Your task to perform on an android device: turn pop-ups off in chrome Image 0: 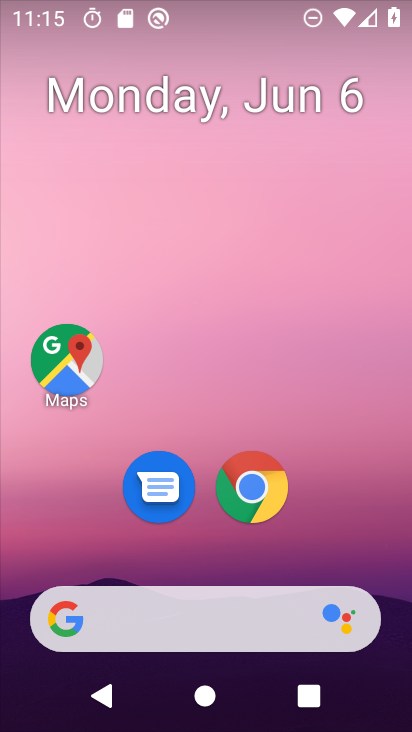
Step 0: drag from (404, 596) to (288, 5)
Your task to perform on an android device: turn pop-ups off in chrome Image 1: 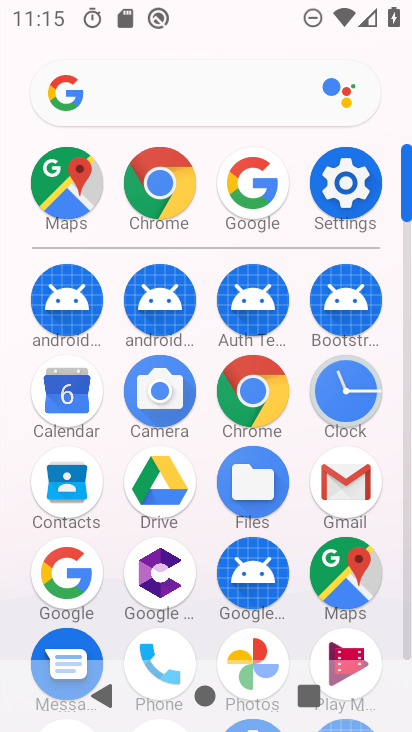
Step 1: click (173, 175)
Your task to perform on an android device: turn pop-ups off in chrome Image 2: 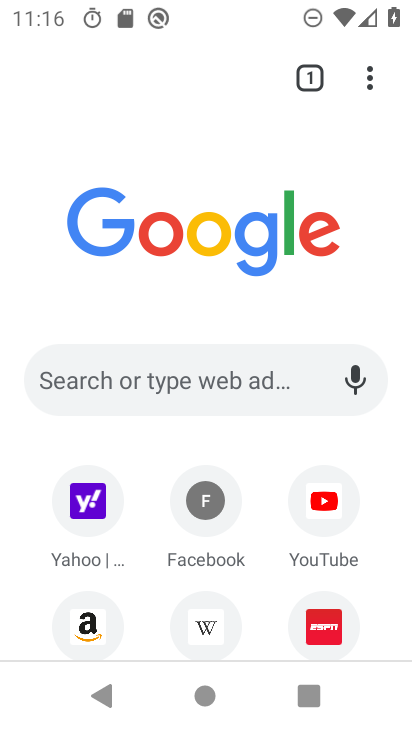
Step 2: click (366, 68)
Your task to perform on an android device: turn pop-ups off in chrome Image 3: 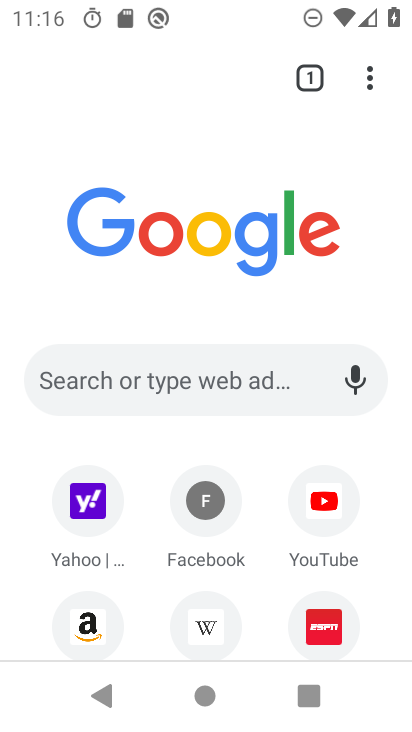
Step 3: click (376, 73)
Your task to perform on an android device: turn pop-ups off in chrome Image 4: 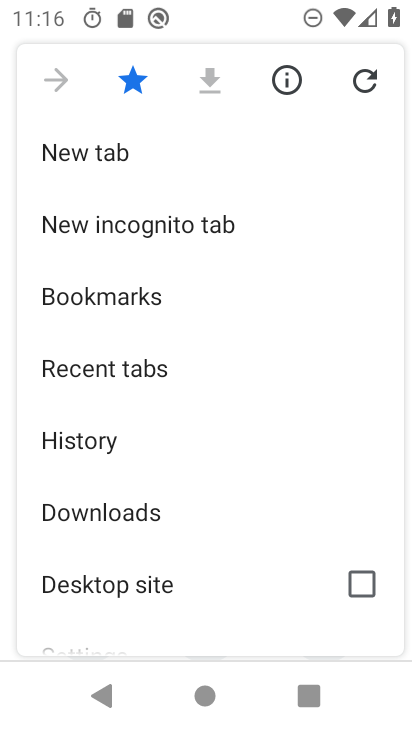
Step 4: drag from (181, 569) to (169, 142)
Your task to perform on an android device: turn pop-ups off in chrome Image 5: 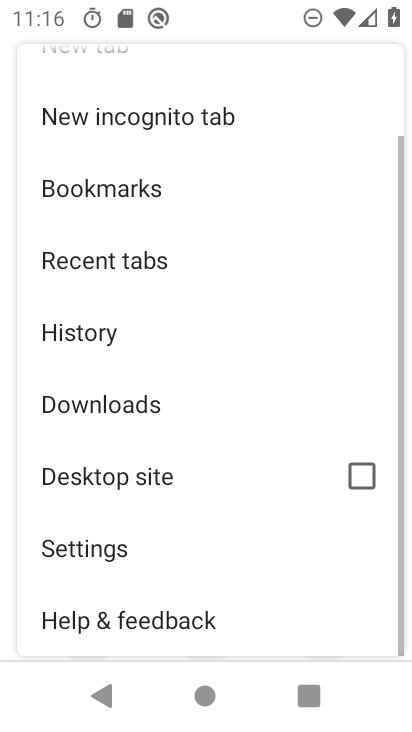
Step 5: click (89, 546)
Your task to perform on an android device: turn pop-ups off in chrome Image 6: 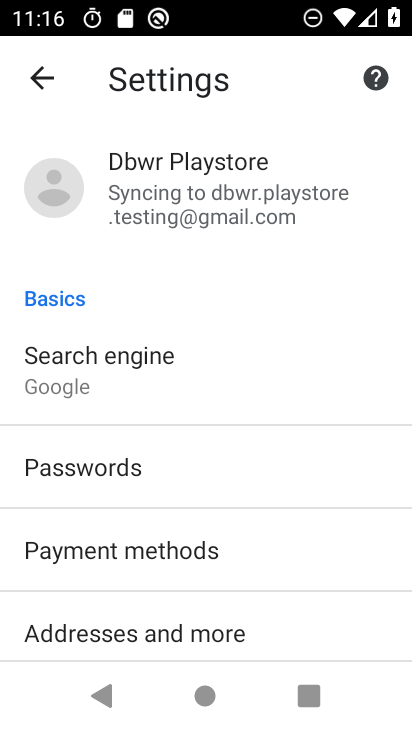
Step 6: drag from (91, 559) to (101, 130)
Your task to perform on an android device: turn pop-ups off in chrome Image 7: 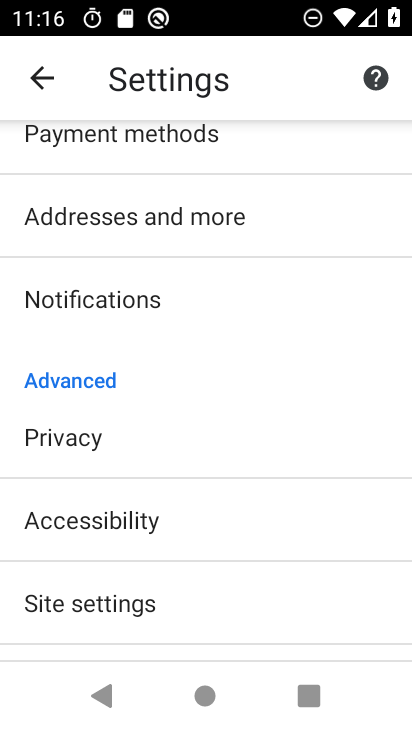
Step 7: click (153, 597)
Your task to perform on an android device: turn pop-ups off in chrome Image 8: 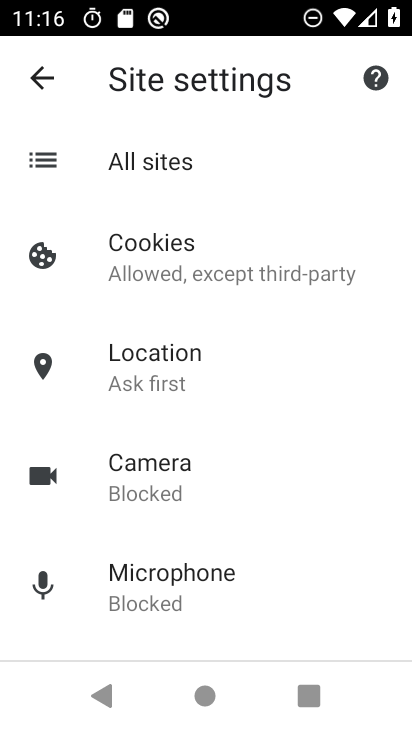
Step 8: drag from (248, 514) to (270, 185)
Your task to perform on an android device: turn pop-ups off in chrome Image 9: 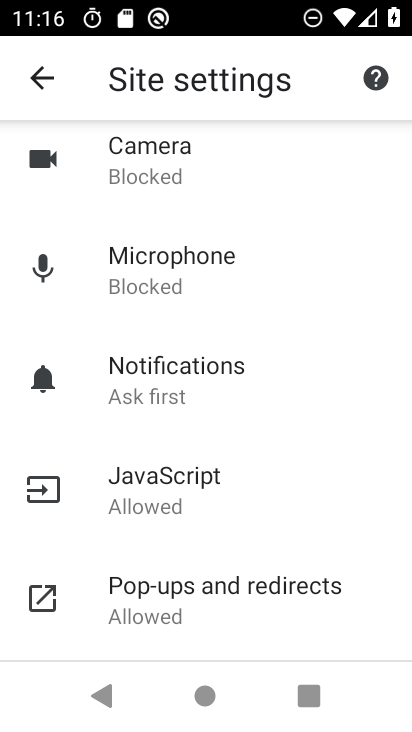
Step 9: click (174, 583)
Your task to perform on an android device: turn pop-ups off in chrome Image 10: 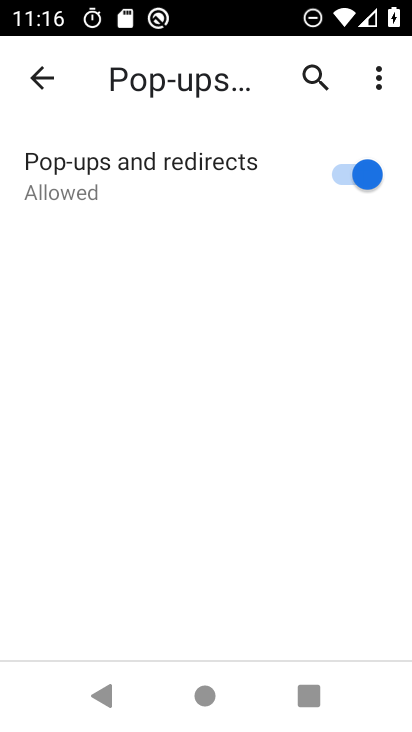
Step 10: click (303, 186)
Your task to perform on an android device: turn pop-ups off in chrome Image 11: 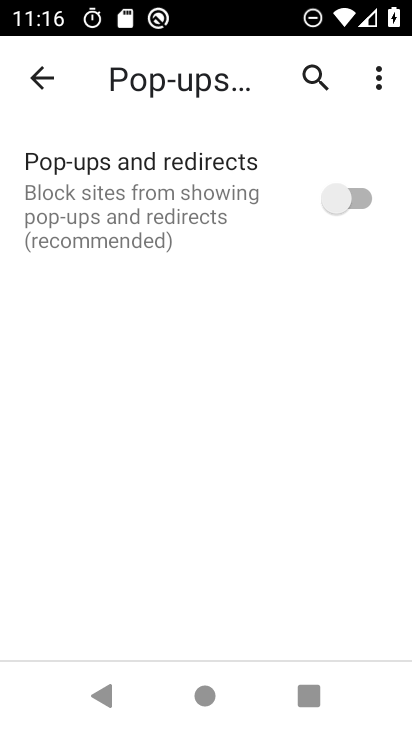
Step 11: task complete